Your task to perform on an android device: turn notification dots on Image 0: 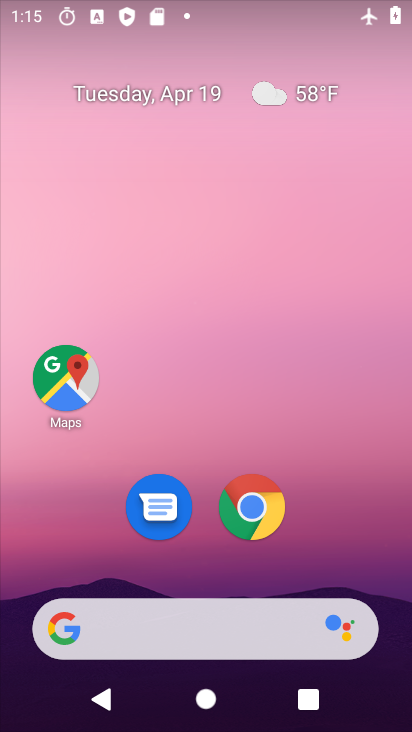
Step 0: drag from (210, 571) to (165, 13)
Your task to perform on an android device: turn notification dots on Image 1: 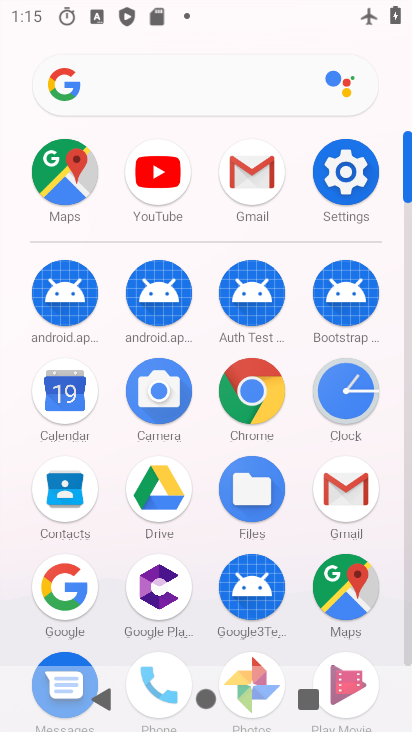
Step 1: click (350, 171)
Your task to perform on an android device: turn notification dots on Image 2: 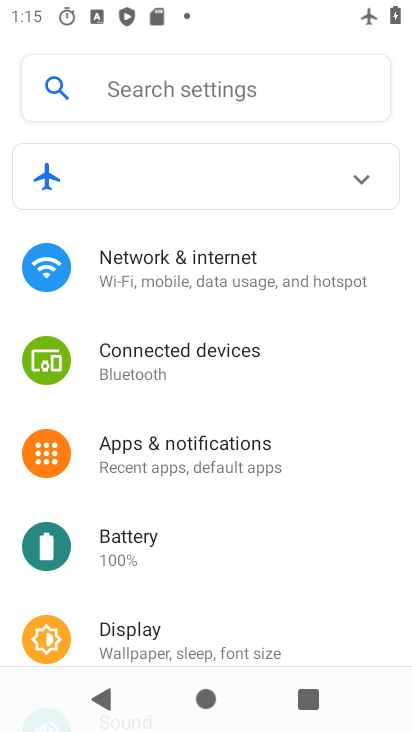
Step 2: click (219, 456)
Your task to perform on an android device: turn notification dots on Image 3: 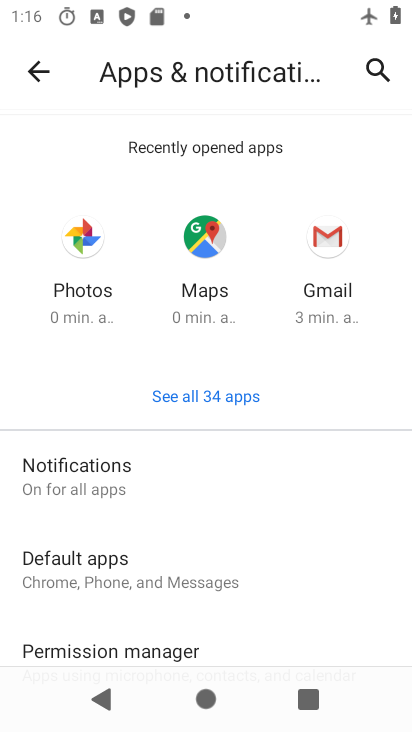
Step 3: click (154, 477)
Your task to perform on an android device: turn notification dots on Image 4: 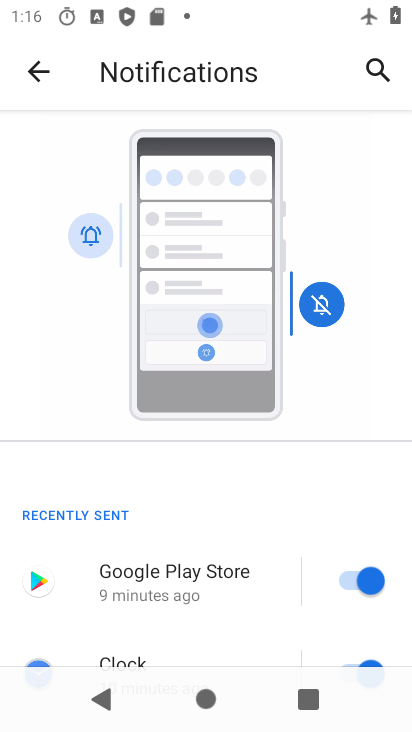
Step 4: drag from (244, 569) to (254, 144)
Your task to perform on an android device: turn notification dots on Image 5: 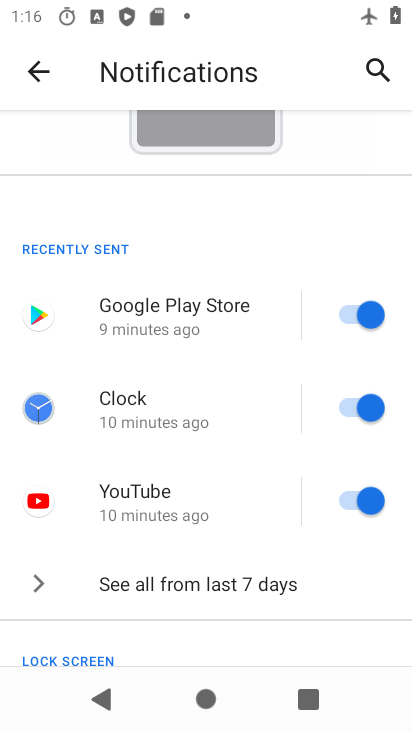
Step 5: drag from (210, 528) to (209, 124)
Your task to perform on an android device: turn notification dots on Image 6: 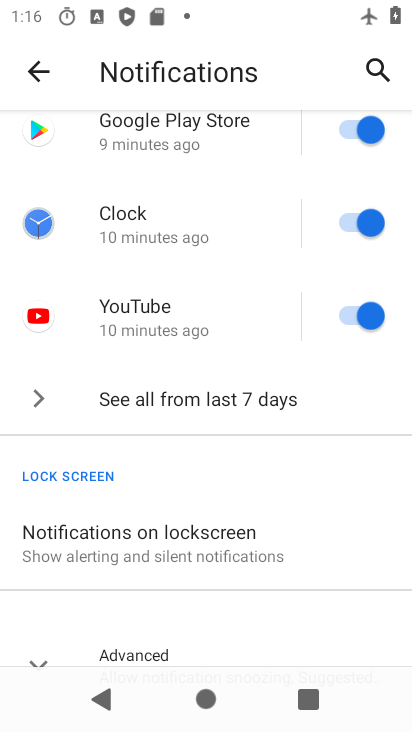
Step 6: drag from (190, 507) to (200, 319)
Your task to perform on an android device: turn notification dots on Image 7: 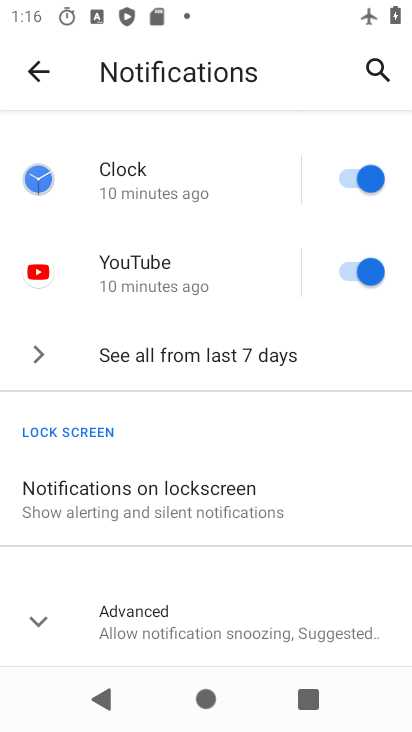
Step 7: click (201, 502)
Your task to perform on an android device: turn notification dots on Image 8: 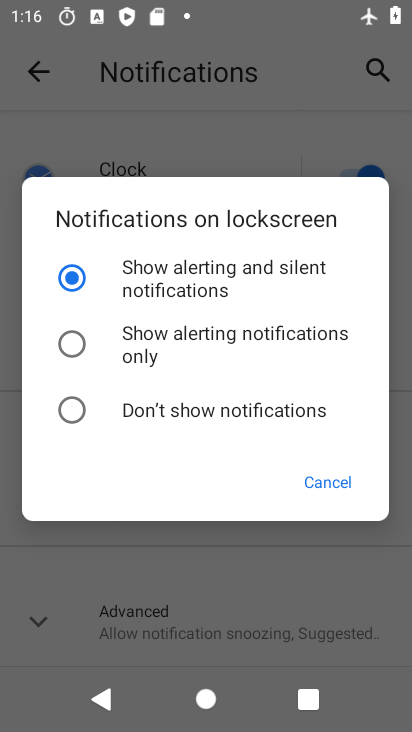
Step 8: click (198, 595)
Your task to perform on an android device: turn notification dots on Image 9: 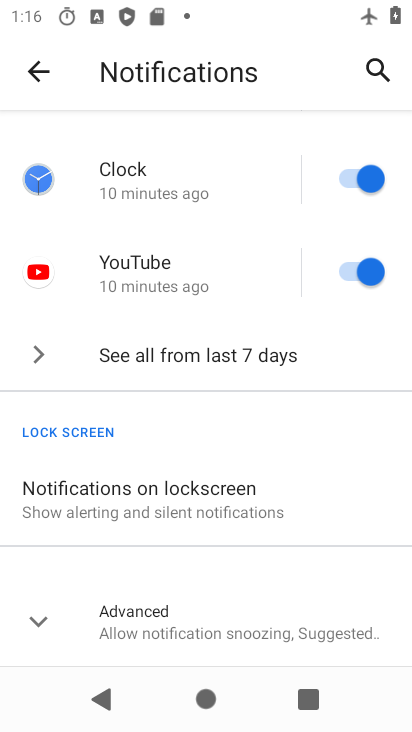
Step 9: click (229, 616)
Your task to perform on an android device: turn notification dots on Image 10: 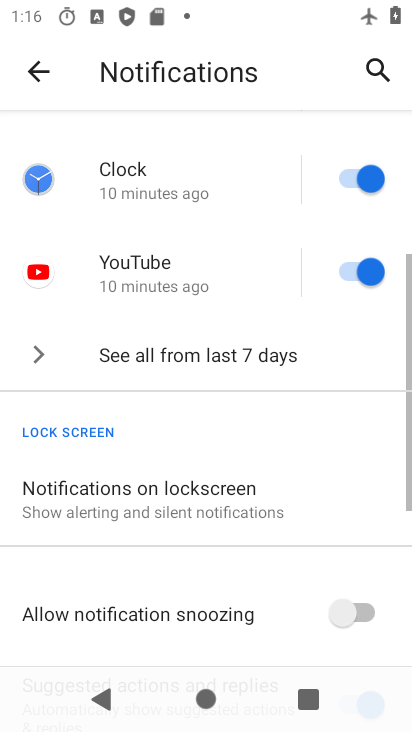
Step 10: task complete